Your task to perform on an android device: change timer sound Image 0: 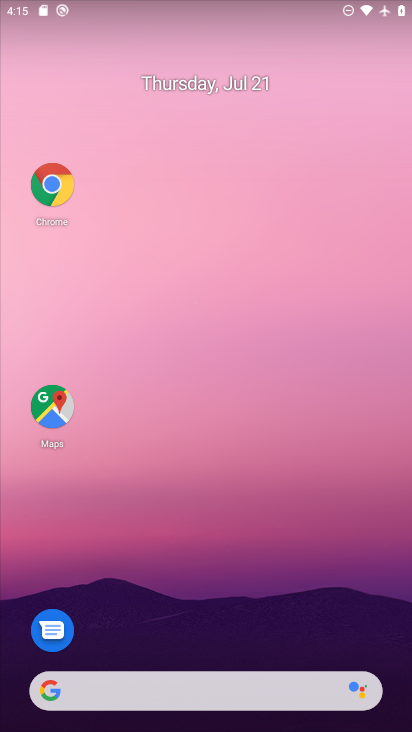
Step 0: drag from (219, 664) to (204, 32)
Your task to perform on an android device: change timer sound Image 1: 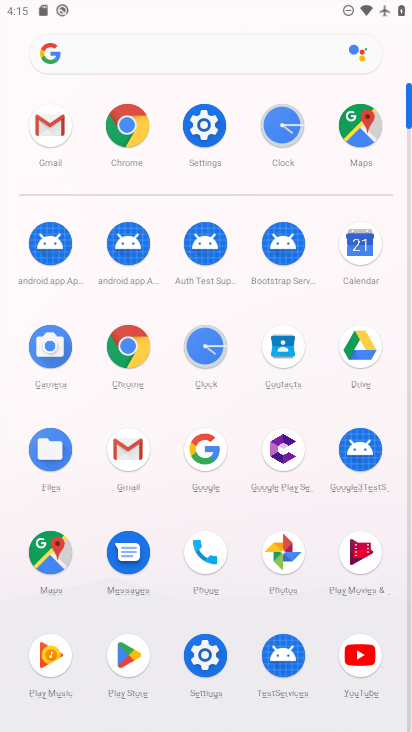
Step 1: click (212, 356)
Your task to perform on an android device: change timer sound Image 2: 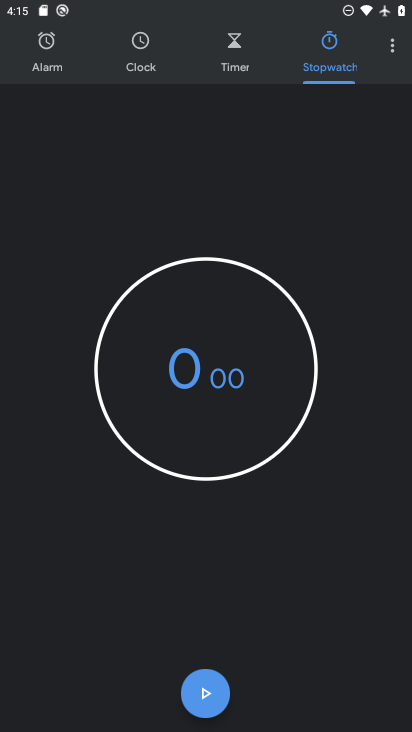
Step 2: click (393, 55)
Your task to perform on an android device: change timer sound Image 3: 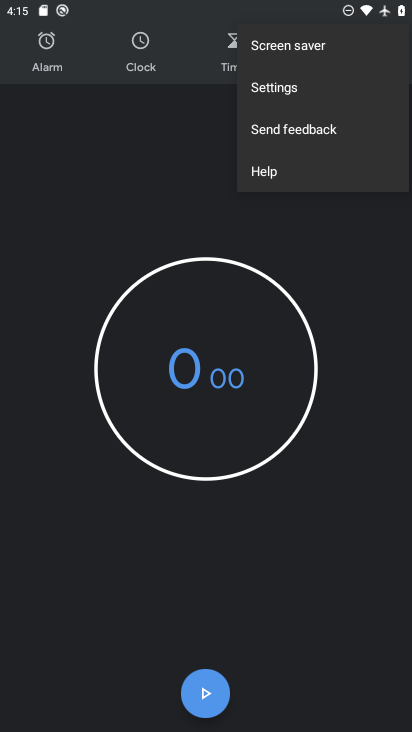
Step 3: click (286, 88)
Your task to perform on an android device: change timer sound Image 4: 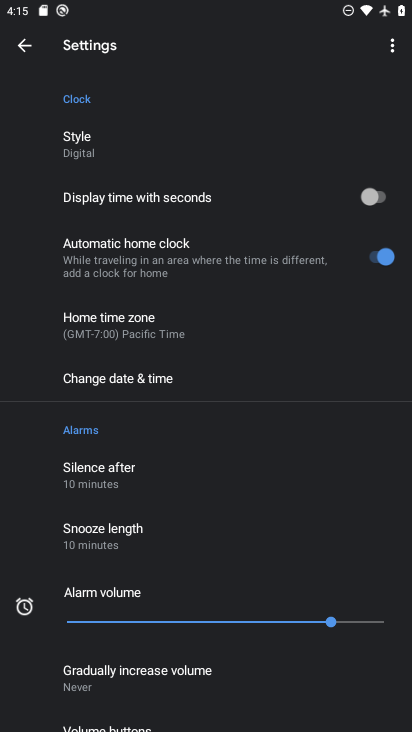
Step 4: drag from (149, 569) to (97, 83)
Your task to perform on an android device: change timer sound Image 5: 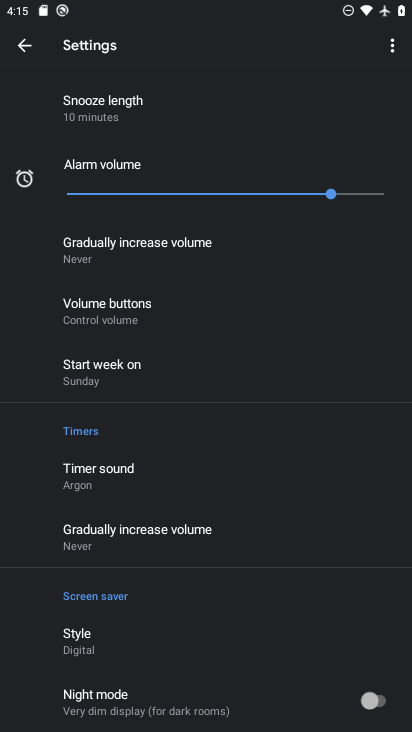
Step 5: click (140, 468)
Your task to perform on an android device: change timer sound Image 6: 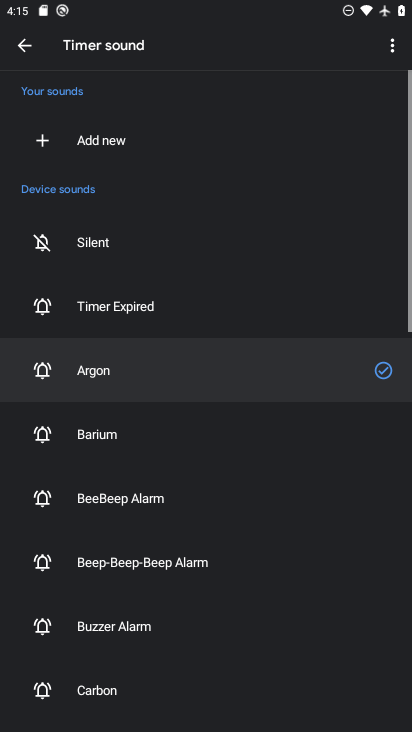
Step 6: click (164, 427)
Your task to perform on an android device: change timer sound Image 7: 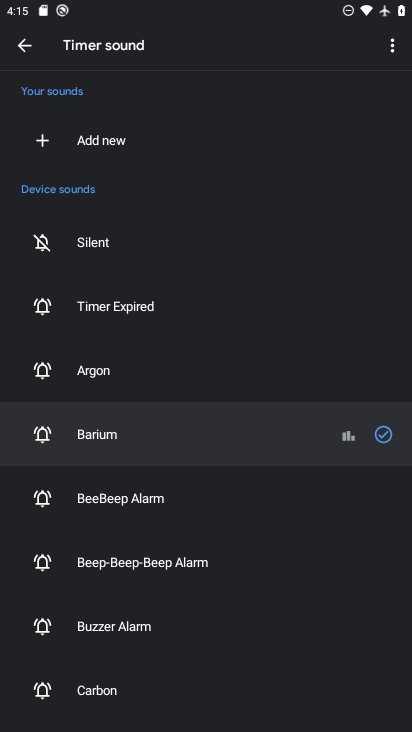
Step 7: task complete